Your task to perform on an android device: change the clock style Image 0: 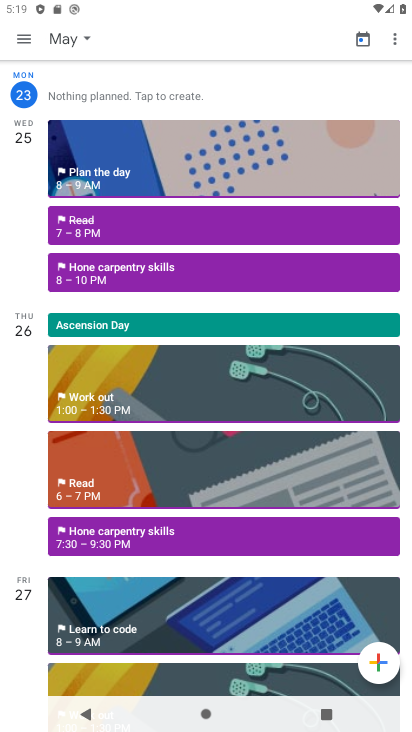
Step 0: press home button
Your task to perform on an android device: change the clock style Image 1: 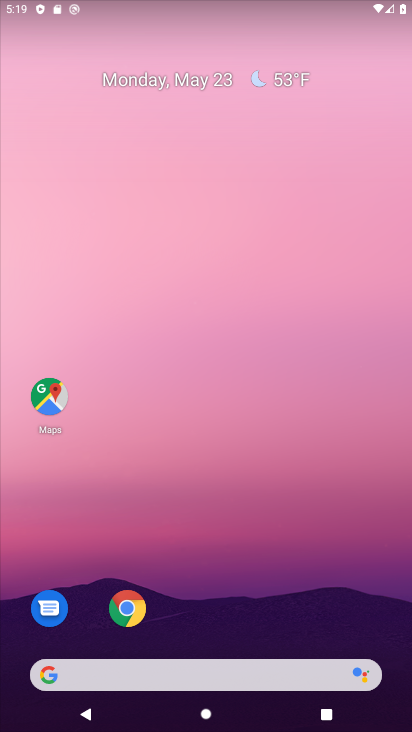
Step 1: drag from (60, 532) to (250, 174)
Your task to perform on an android device: change the clock style Image 2: 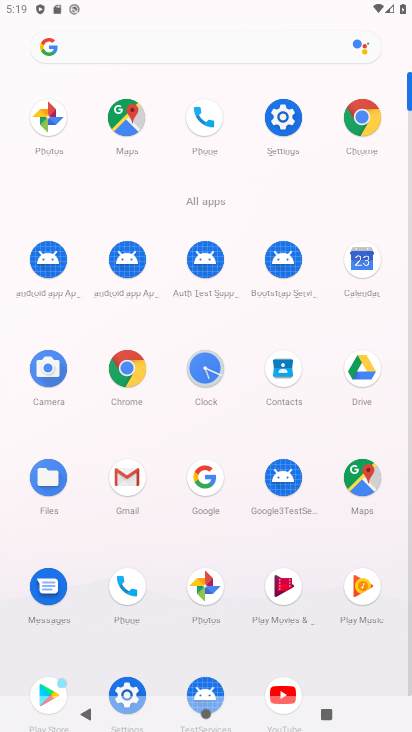
Step 2: click (209, 370)
Your task to perform on an android device: change the clock style Image 3: 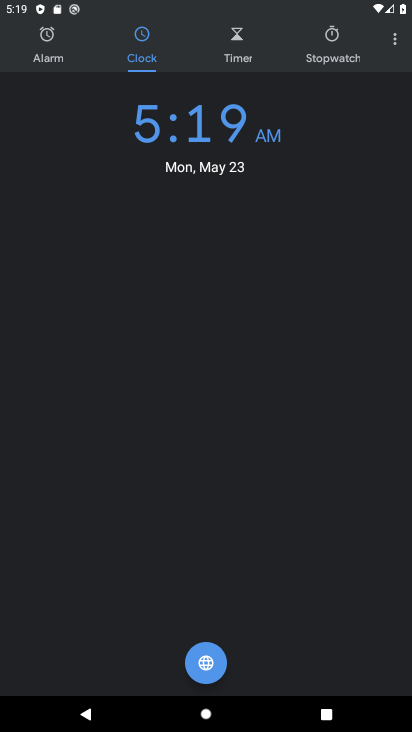
Step 3: click (392, 32)
Your task to perform on an android device: change the clock style Image 4: 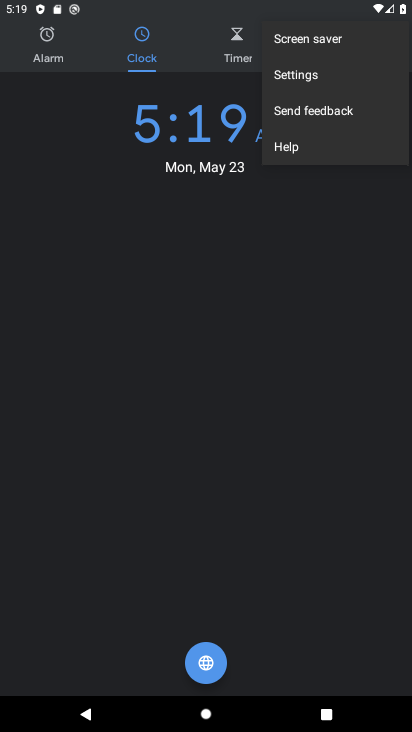
Step 4: click (309, 81)
Your task to perform on an android device: change the clock style Image 5: 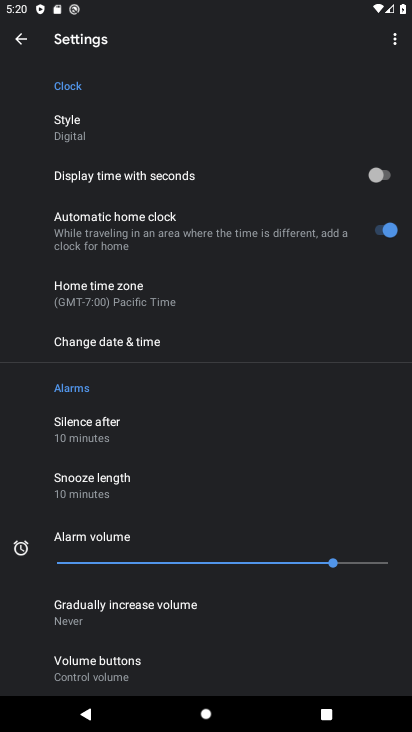
Step 5: click (84, 130)
Your task to perform on an android device: change the clock style Image 6: 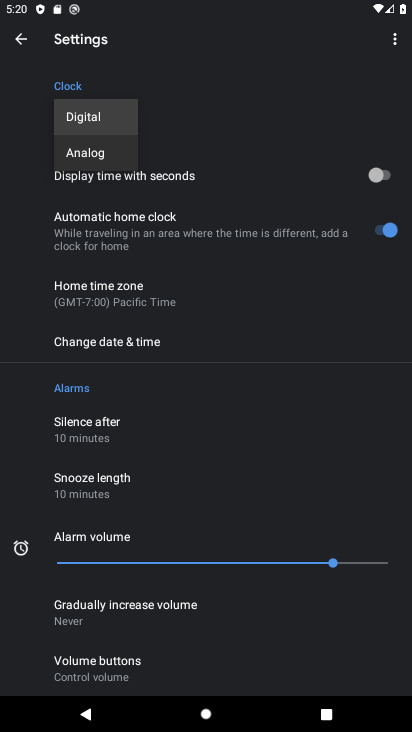
Step 6: click (72, 149)
Your task to perform on an android device: change the clock style Image 7: 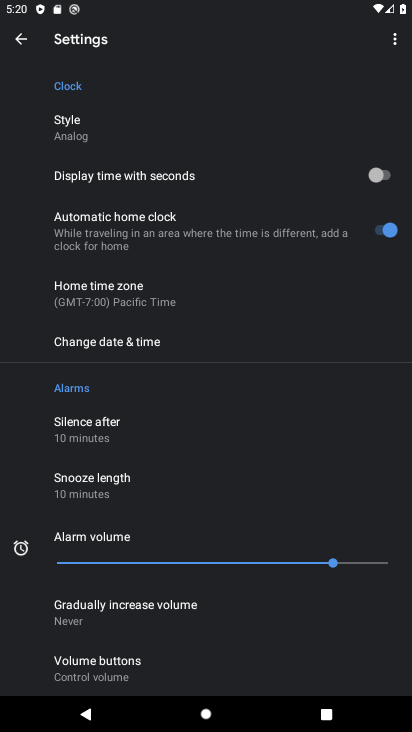
Step 7: task complete